Your task to perform on an android device: Is it going to rain this weekend? Image 0: 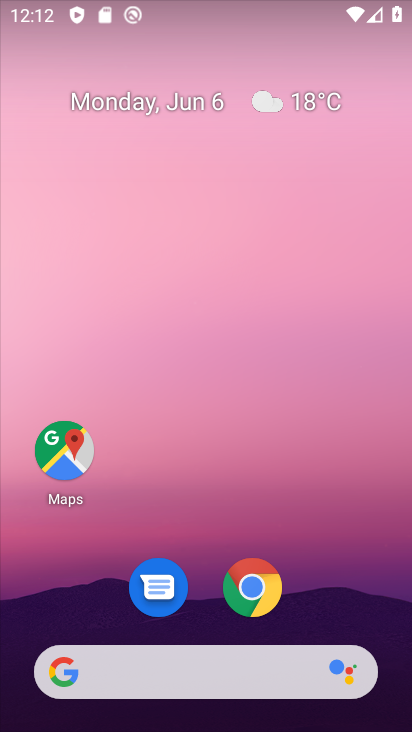
Step 0: drag from (312, 276) to (312, 175)
Your task to perform on an android device: Is it going to rain this weekend? Image 1: 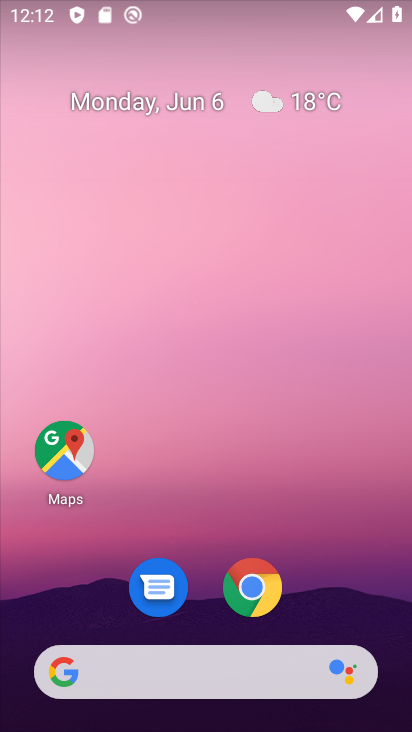
Step 1: drag from (353, 578) to (349, 131)
Your task to perform on an android device: Is it going to rain this weekend? Image 2: 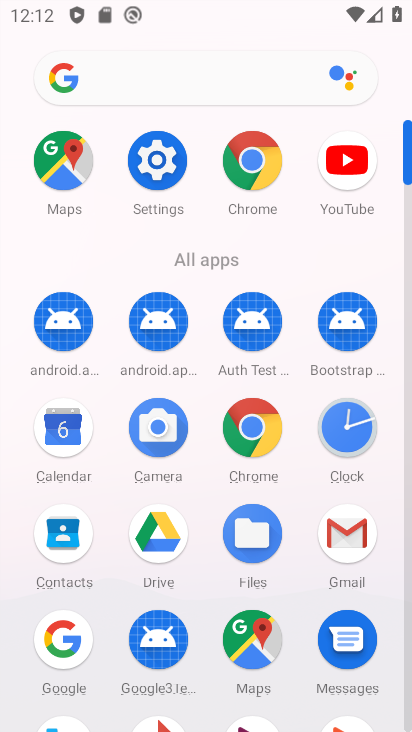
Step 2: click (250, 449)
Your task to perform on an android device: Is it going to rain this weekend? Image 3: 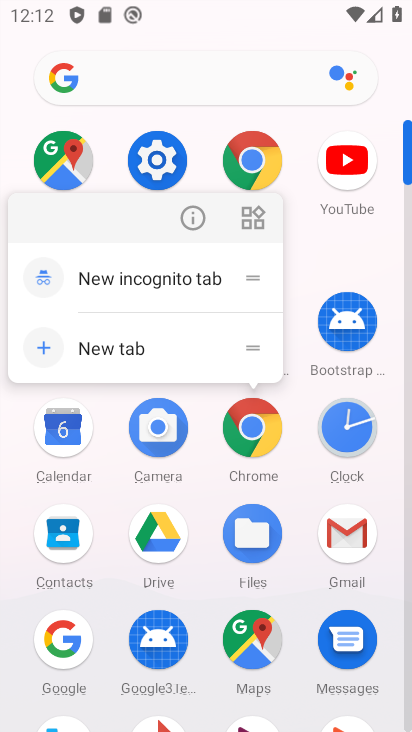
Step 3: click (251, 454)
Your task to perform on an android device: Is it going to rain this weekend? Image 4: 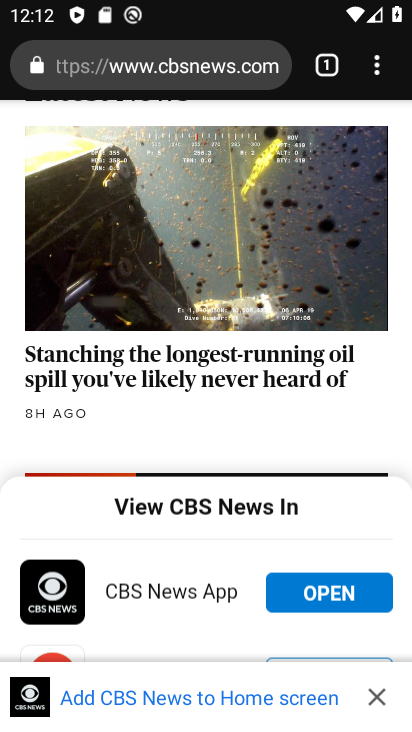
Step 4: drag from (220, 105) to (227, 508)
Your task to perform on an android device: Is it going to rain this weekend? Image 5: 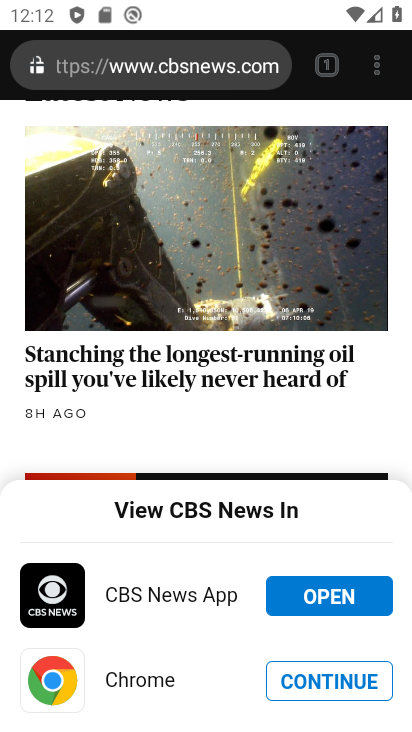
Step 5: click (326, 72)
Your task to perform on an android device: Is it going to rain this weekend? Image 6: 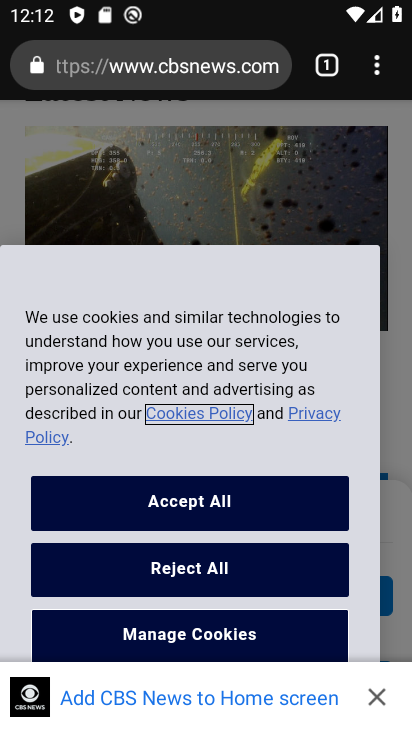
Step 6: click (337, 74)
Your task to perform on an android device: Is it going to rain this weekend? Image 7: 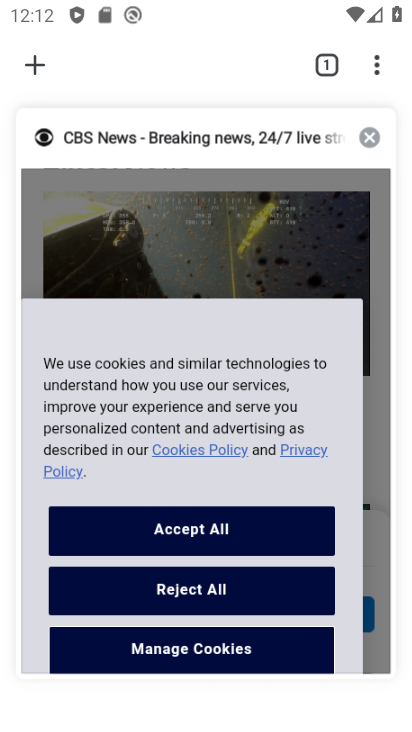
Step 7: click (35, 68)
Your task to perform on an android device: Is it going to rain this weekend? Image 8: 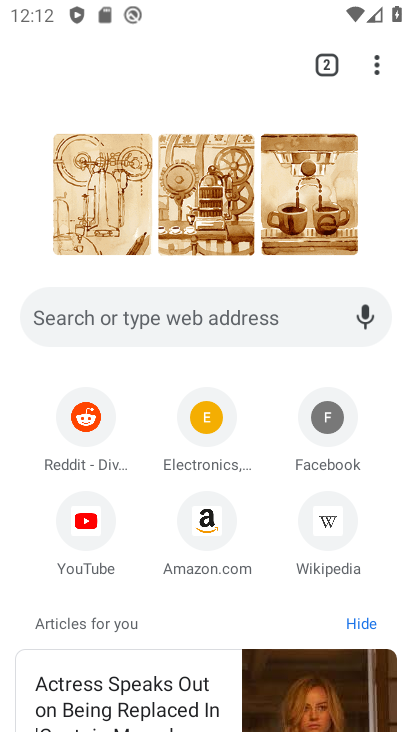
Step 8: click (112, 321)
Your task to perform on an android device: Is it going to rain this weekend? Image 9: 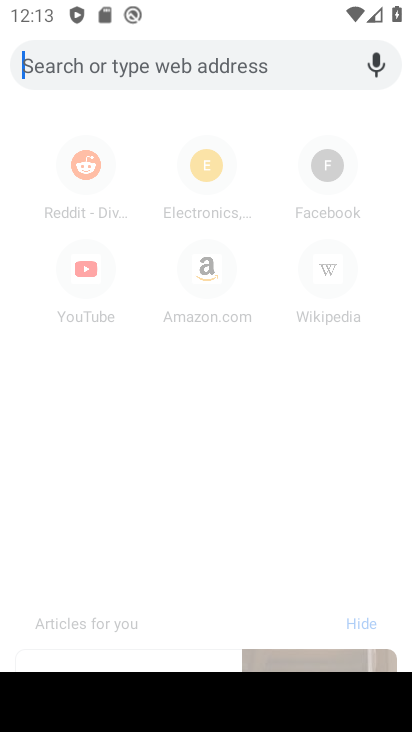
Step 9: type "is it going to rain this weekend "
Your task to perform on an android device: Is it going to rain this weekend? Image 10: 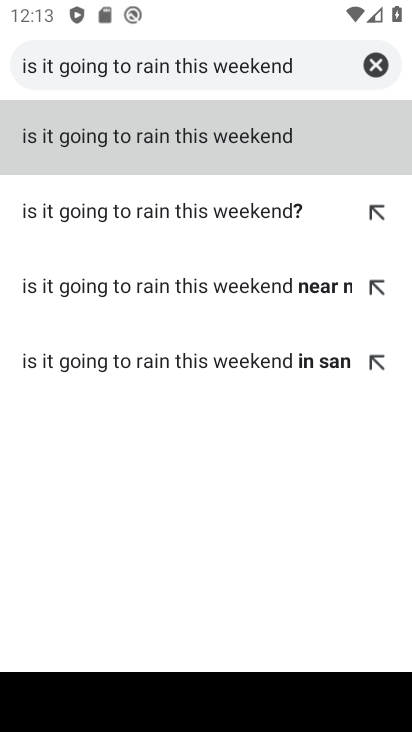
Step 10: click (203, 138)
Your task to perform on an android device: Is it going to rain this weekend? Image 11: 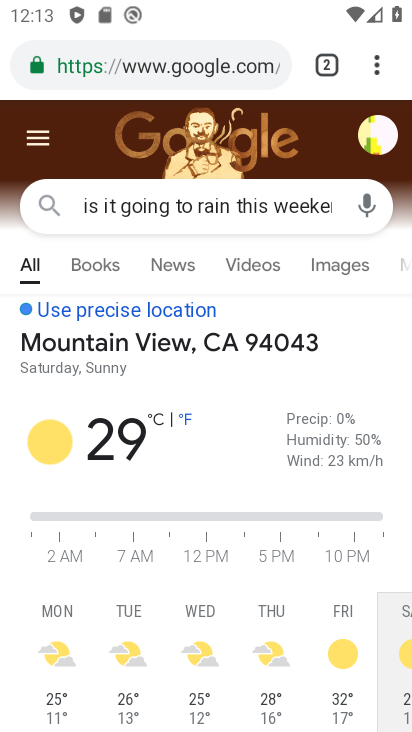
Step 11: task complete